Your task to perform on an android device: delete a single message in the gmail app Image 0: 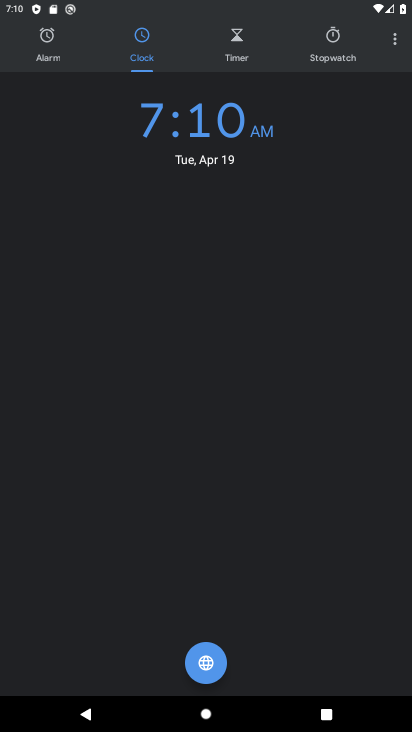
Step 0: press home button
Your task to perform on an android device: delete a single message in the gmail app Image 1: 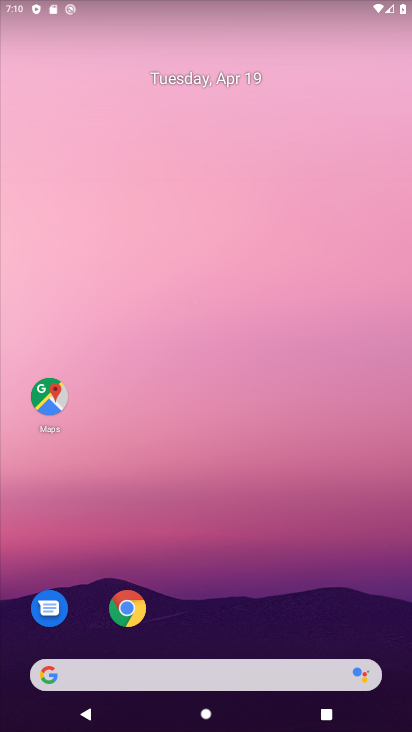
Step 1: drag from (305, 609) to (344, 31)
Your task to perform on an android device: delete a single message in the gmail app Image 2: 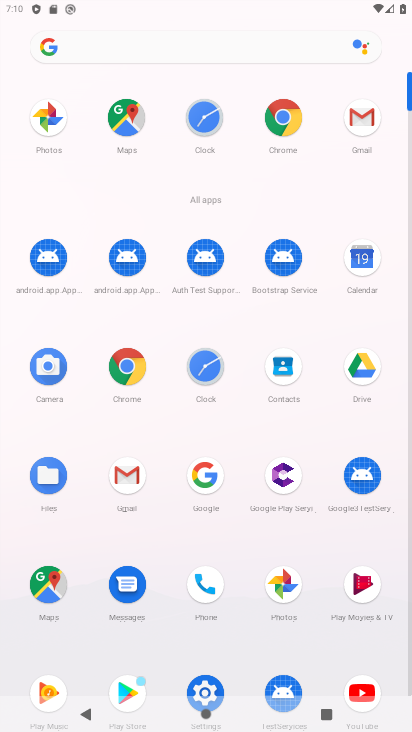
Step 2: click (113, 468)
Your task to perform on an android device: delete a single message in the gmail app Image 3: 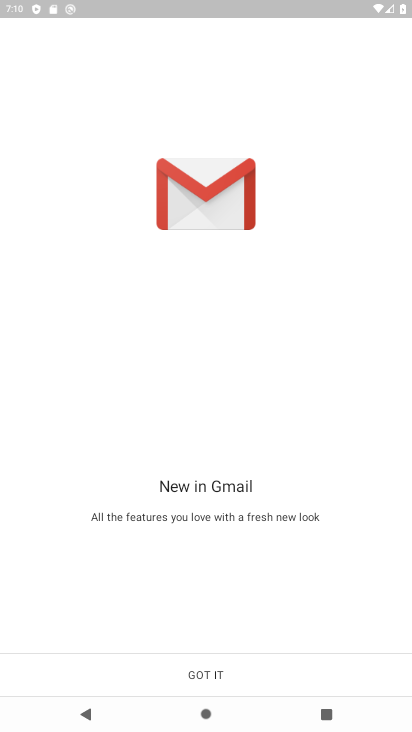
Step 3: click (208, 668)
Your task to perform on an android device: delete a single message in the gmail app Image 4: 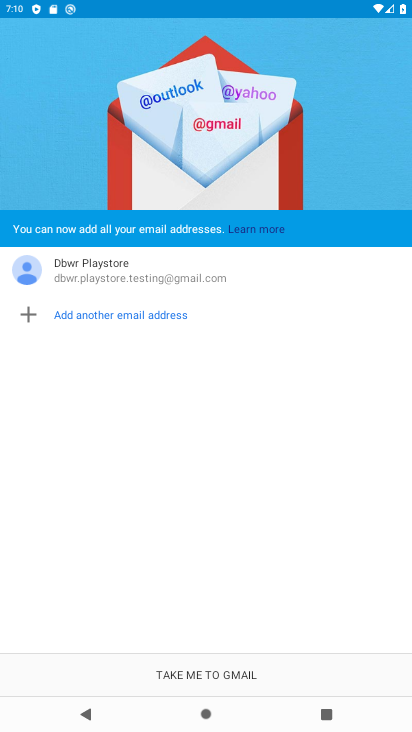
Step 4: click (234, 676)
Your task to perform on an android device: delete a single message in the gmail app Image 5: 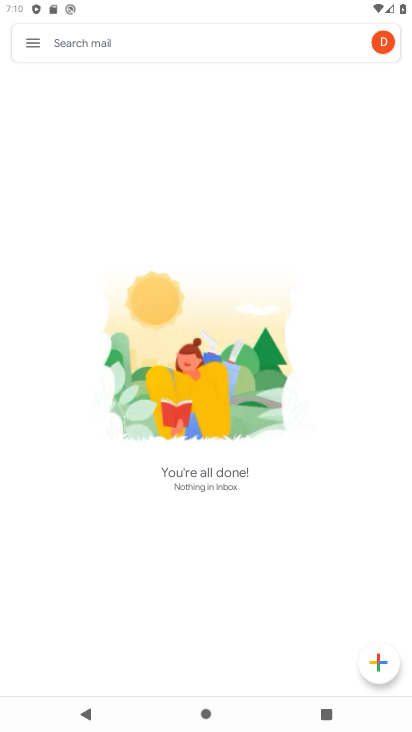
Step 5: click (34, 43)
Your task to perform on an android device: delete a single message in the gmail app Image 6: 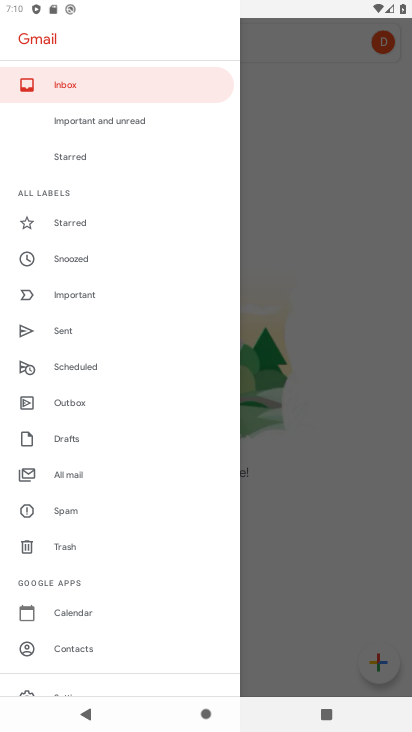
Step 6: click (124, 92)
Your task to perform on an android device: delete a single message in the gmail app Image 7: 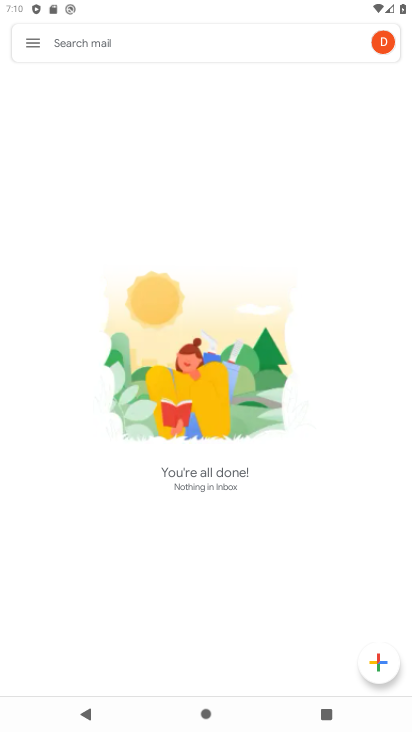
Step 7: task complete